Your task to perform on an android device: Open calendar and show me the fourth week of next month Image 0: 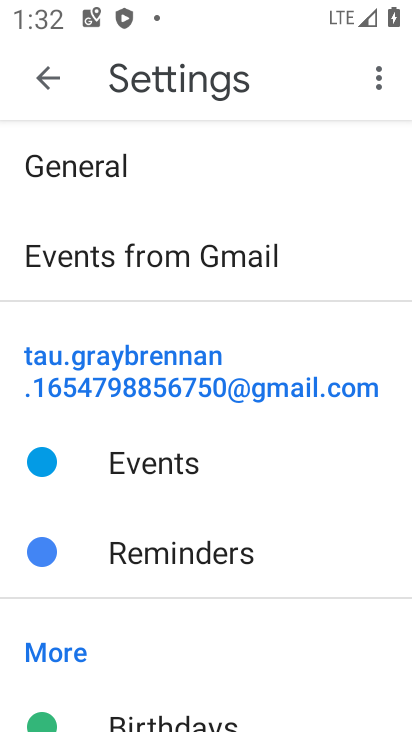
Step 0: press home button
Your task to perform on an android device: Open calendar and show me the fourth week of next month Image 1: 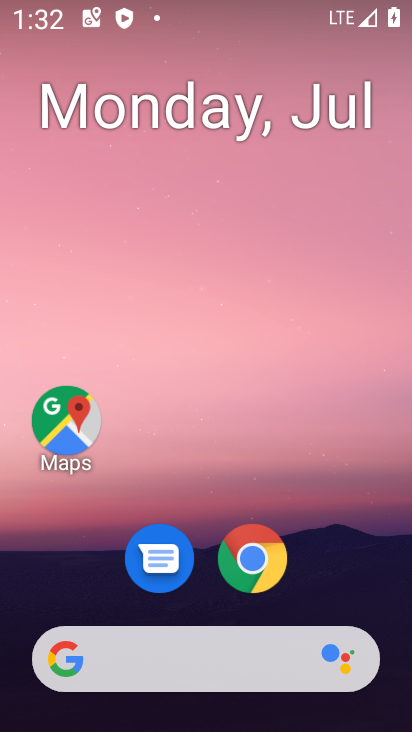
Step 1: drag from (364, 603) to (385, 145)
Your task to perform on an android device: Open calendar and show me the fourth week of next month Image 2: 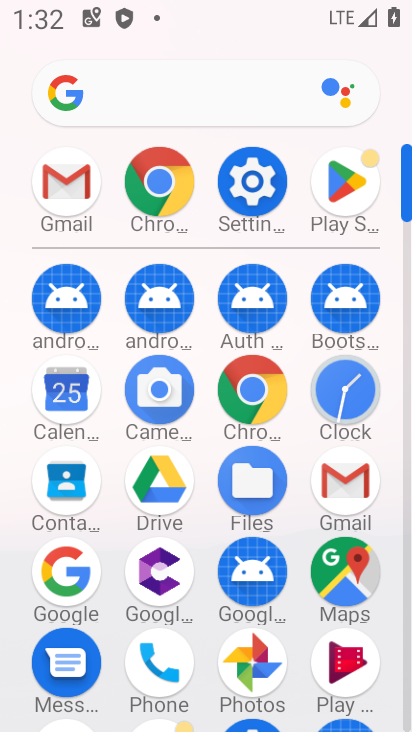
Step 2: click (76, 395)
Your task to perform on an android device: Open calendar and show me the fourth week of next month Image 3: 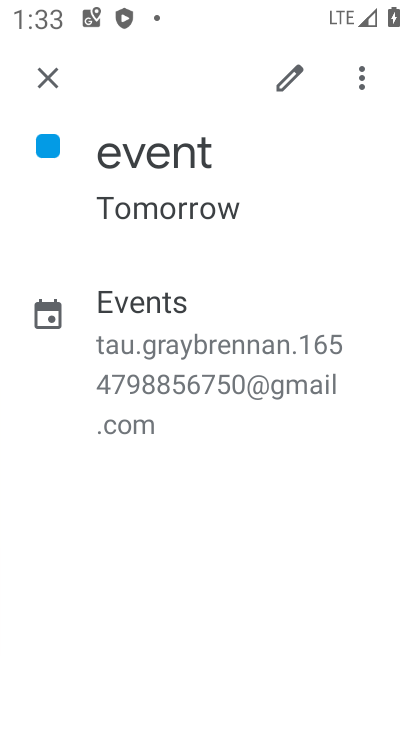
Step 3: press back button
Your task to perform on an android device: Open calendar and show me the fourth week of next month Image 4: 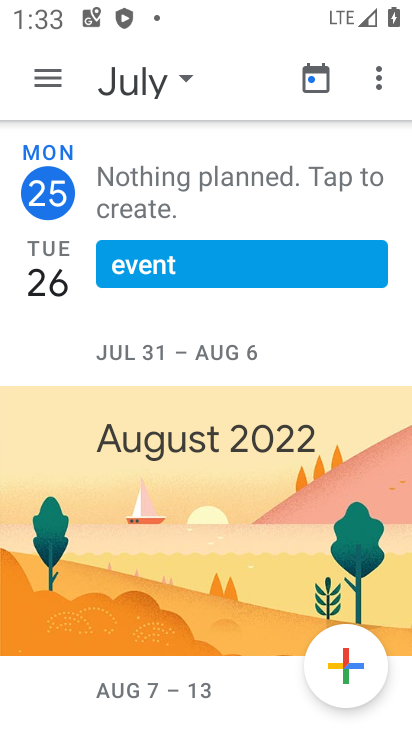
Step 4: click (186, 79)
Your task to perform on an android device: Open calendar and show me the fourth week of next month Image 5: 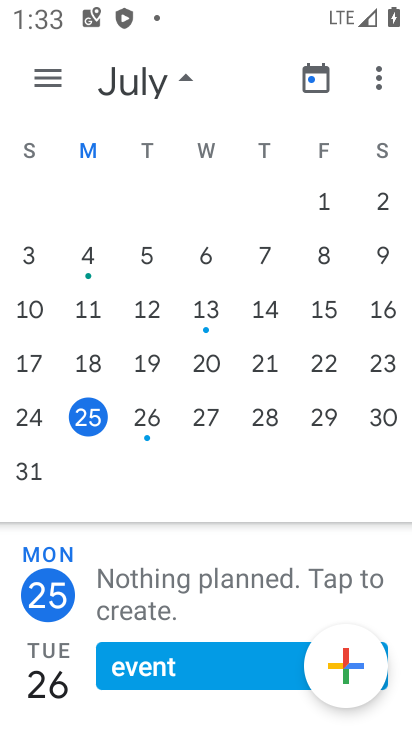
Step 5: drag from (392, 221) to (24, 196)
Your task to perform on an android device: Open calendar and show me the fourth week of next month Image 6: 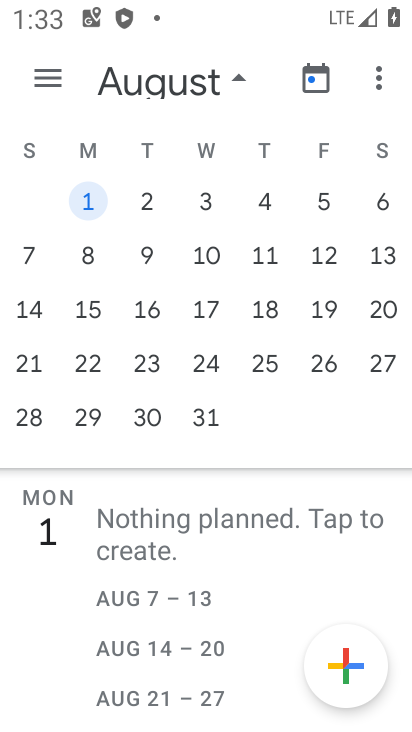
Step 6: click (78, 361)
Your task to perform on an android device: Open calendar and show me the fourth week of next month Image 7: 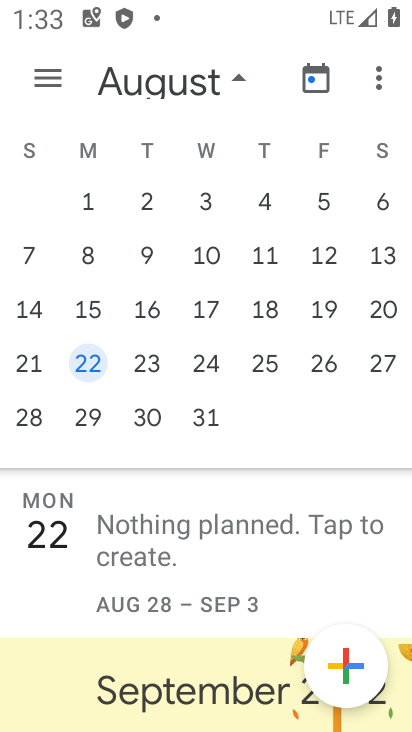
Step 7: task complete